Your task to perform on an android device: change text size in settings app Image 0: 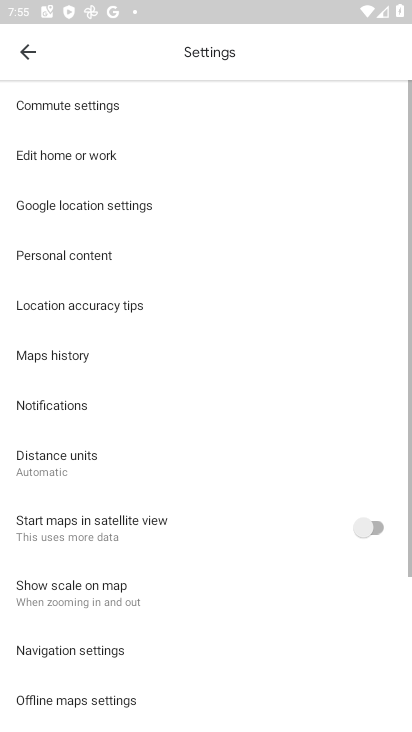
Step 0: press home button
Your task to perform on an android device: change text size in settings app Image 1: 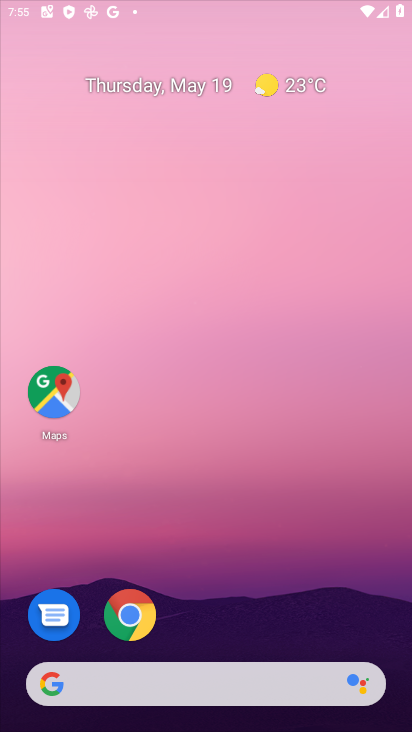
Step 1: drag from (363, 610) to (276, 65)
Your task to perform on an android device: change text size in settings app Image 2: 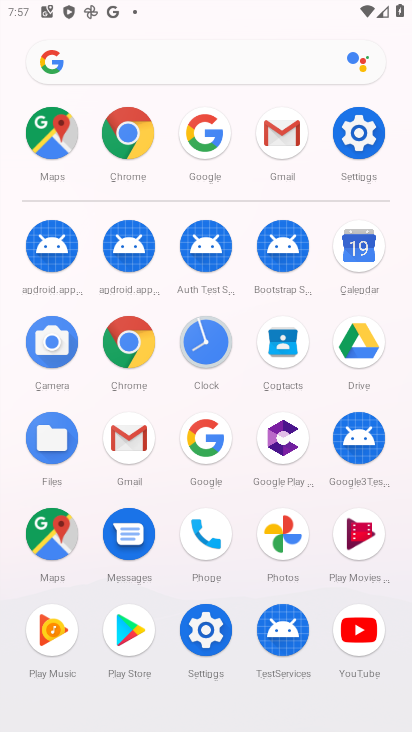
Step 2: click (364, 121)
Your task to perform on an android device: change text size in settings app Image 3: 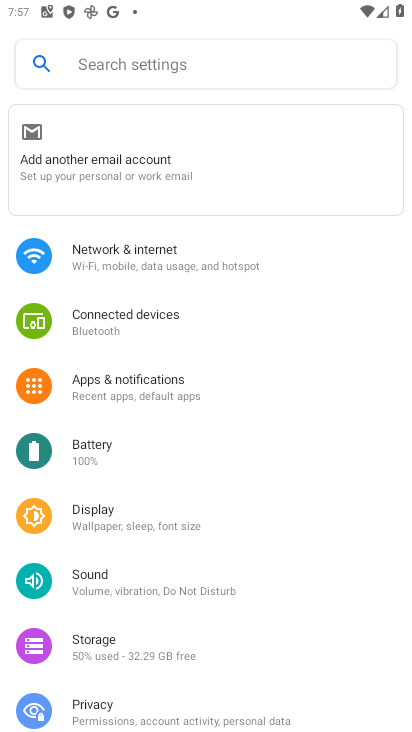
Step 3: click (102, 526)
Your task to perform on an android device: change text size in settings app Image 4: 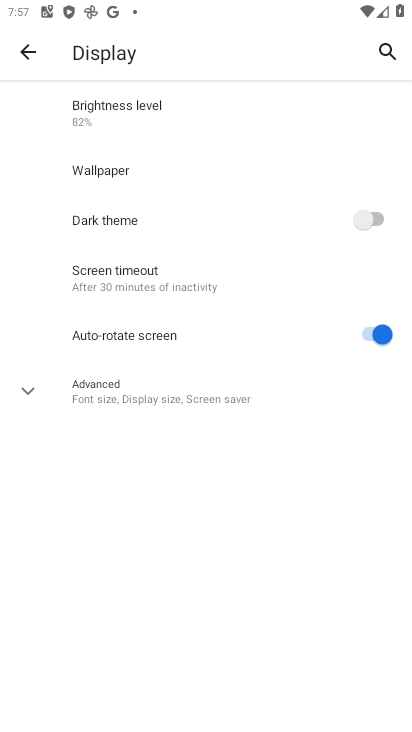
Step 4: click (124, 394)
Your task to perform on an android device: change text size in settings app Image 5: 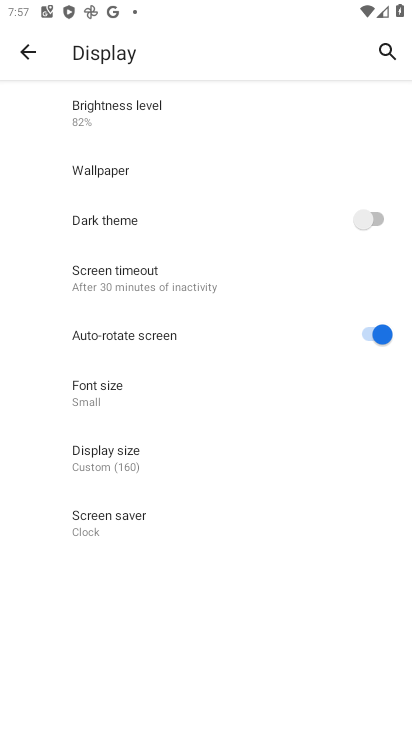
Step 5: click (122, 395)
Your task to perform on an android device: change text size in settings app Image 6: 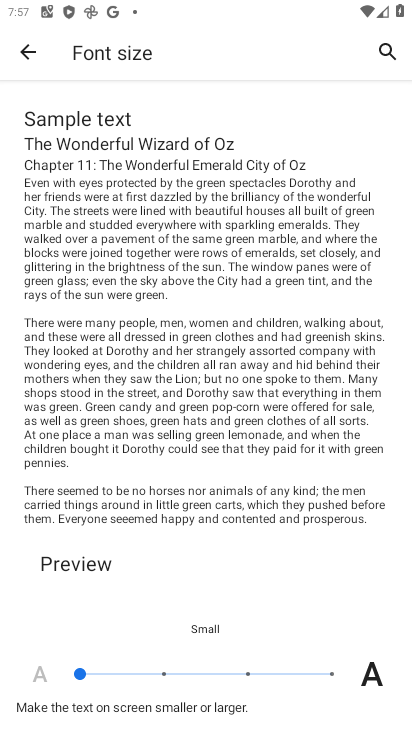
Step 6: click (162, 671)
Your task to perform on an android device: change text size in settings app Image 7: 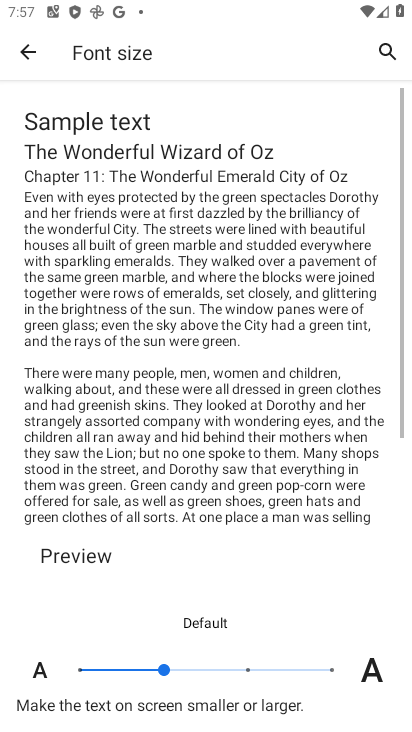
Step 7: task complete